Your task to perform on an android device: When is my next meeting? Image 0: 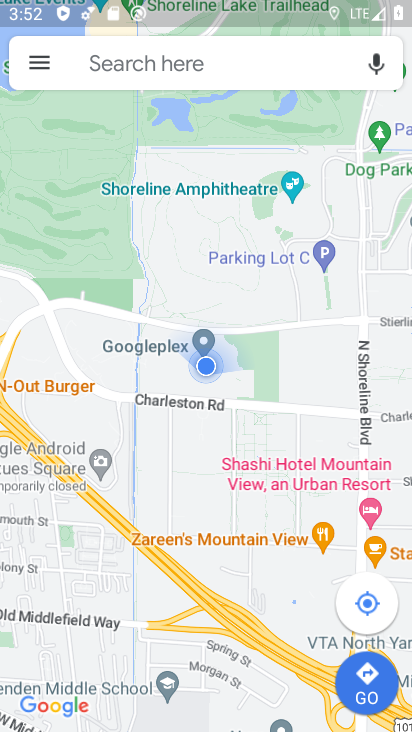
Step 0: press home button
Your task to perform on an android device: When is my next meeting? Image 1: 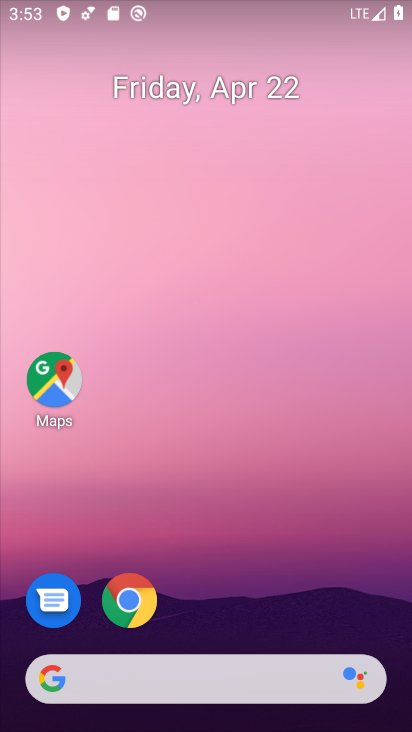
Step 1: drag from (328, 588) to (298, 195)
Your task to perform on an android device: When is my next meeting? Image 2: 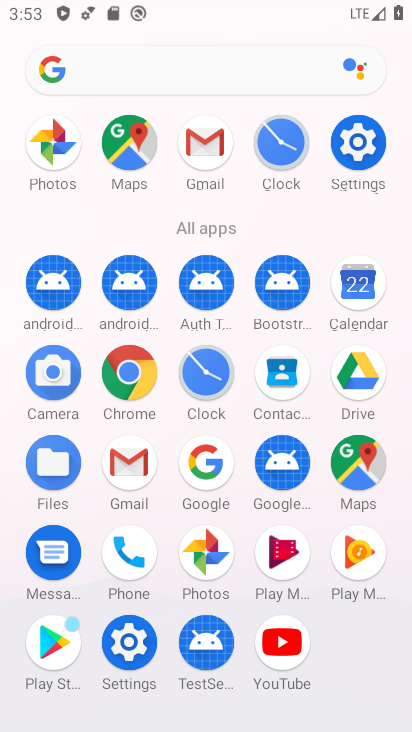
Step 2: click (358, 293)
Your task to perform on an android device: When is my next meeting? Image 3: 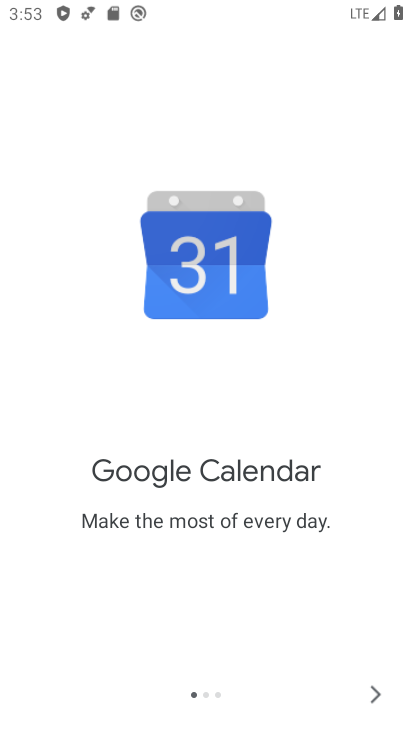
Step 3: click (365, 697)
Your task to perform on an android device: When is my next meeting? Image 4: 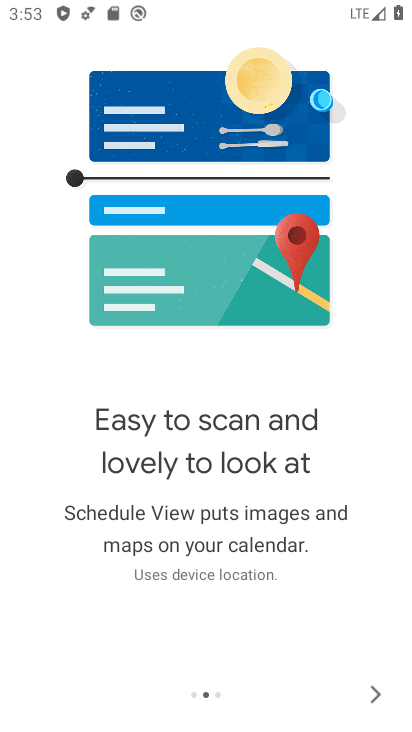
Step 4: click (365, 697)
Your task to perform on an android device: When is my next meeting? Image 5: 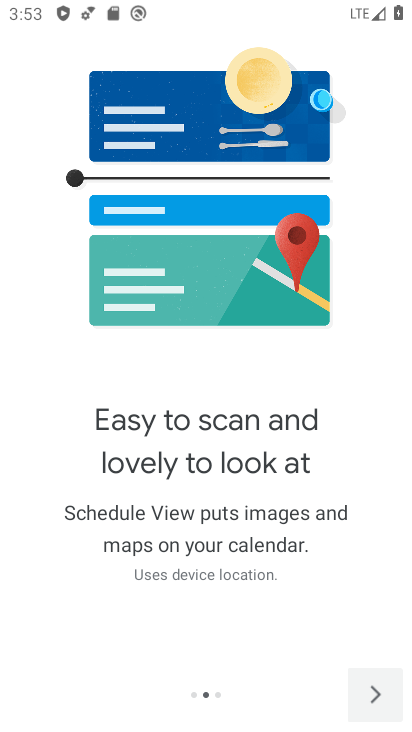
Step 5: click (365, 697)
Your task to perform on an android device: When is my next meeting? Image 6: 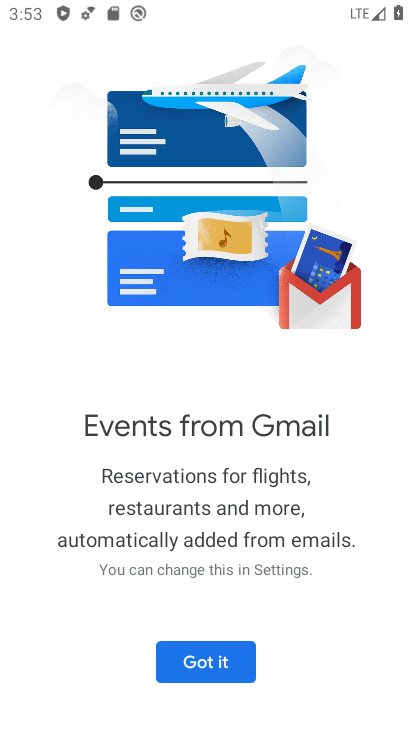
Step 6: click (191, 661)
Your task to perform on an android device: When is my next meeting? Image 7: 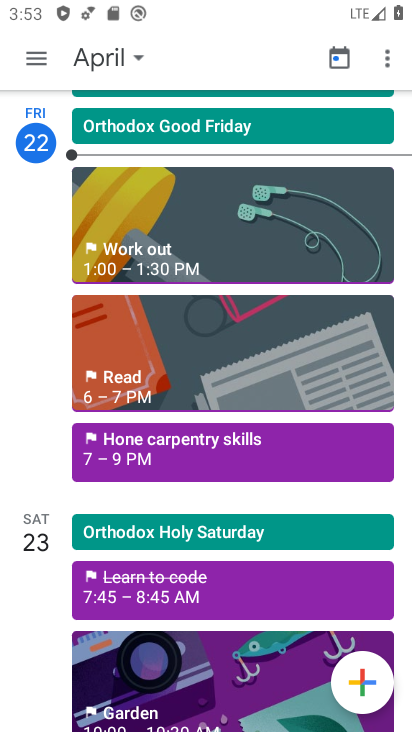
Step 7: task complete